Your task to perform on an android device: Is it going to rain this weekend? Image 0: 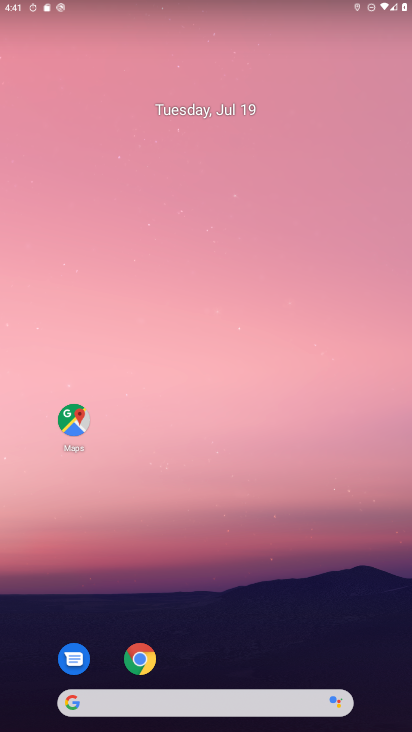
Step 0: drag from (326, 650) to (403, 88)
Your task to perform on an android device: Is it going to rain this weekend? Image 1: 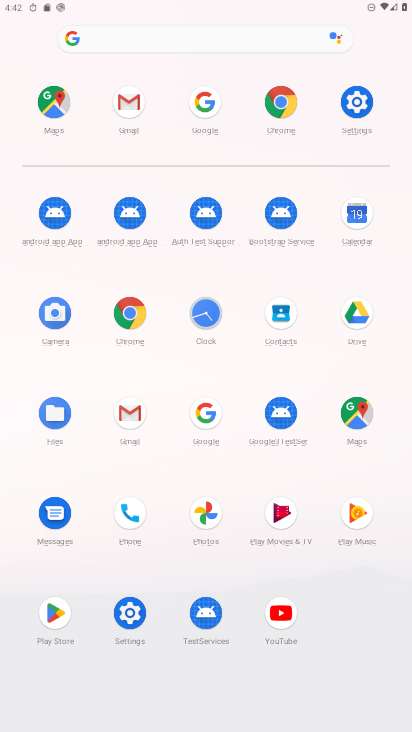
Step 1: click (192, 421)
Your task to perform on an android device: Is it going to rain this weekend? Image 2: 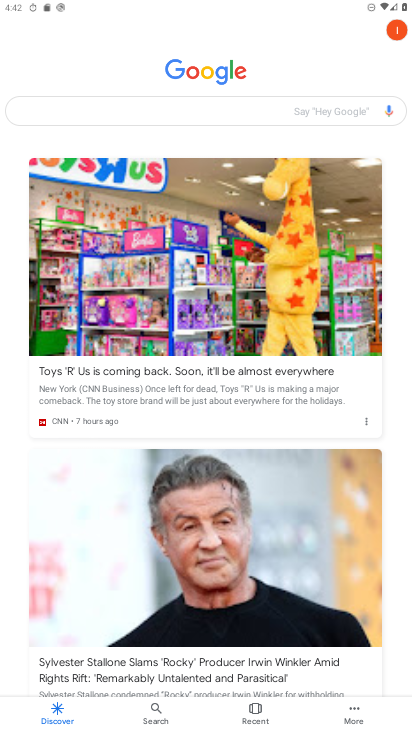
Step 2: click (229, 105)
Your task to perform on an android device: Is it going to rain this weekend? Image 3: 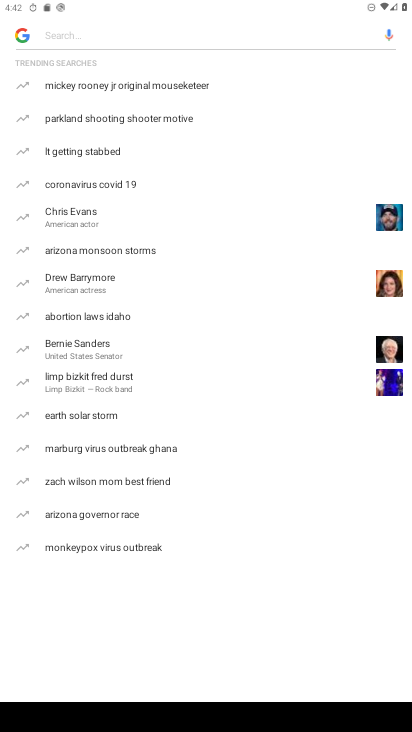
Step 3: type "weekend"
Your task to perform on an android device: Is it going to rain this weekend? Image 4: 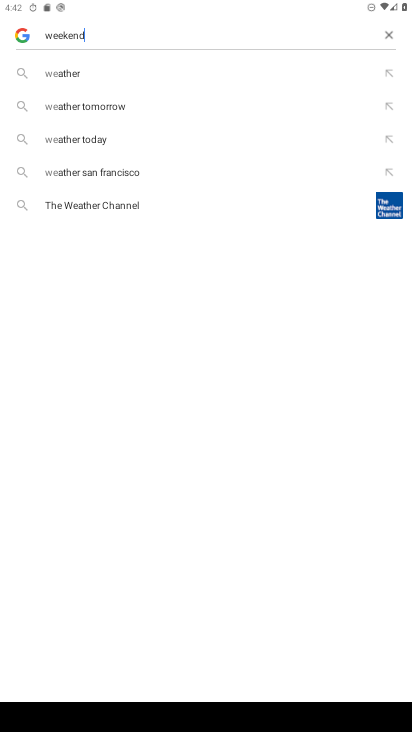
Step 4: press enter
Your task to perform on an android device: Is it going to rain this weekend? Image 5: 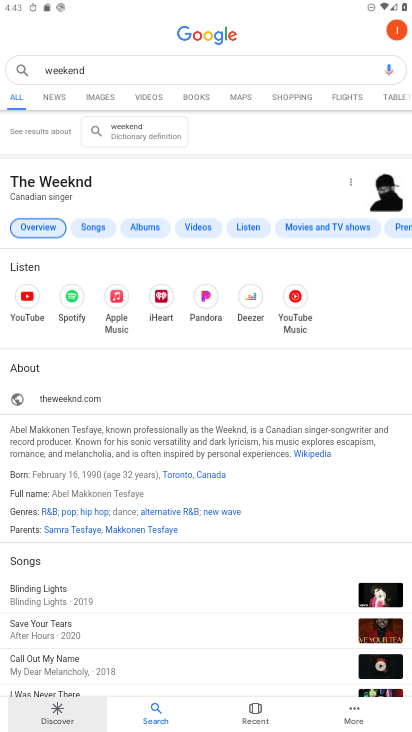
Step 5: task complete